Your task to perform on an android device: Open Google Chrome Image 0: 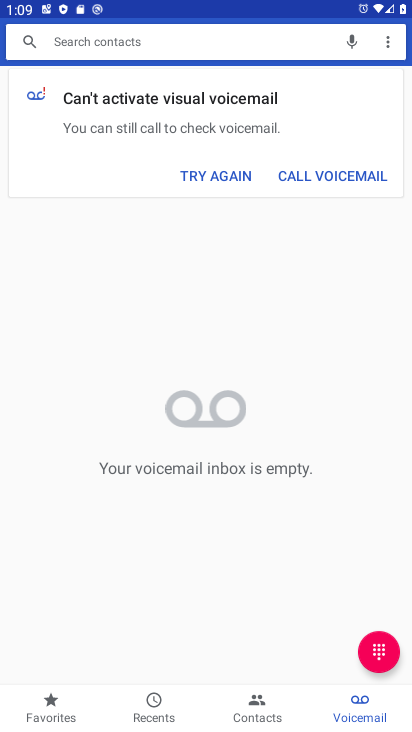
Step 0: press home button
Your task to perform on an android device: Open Google Chrome Image 1: 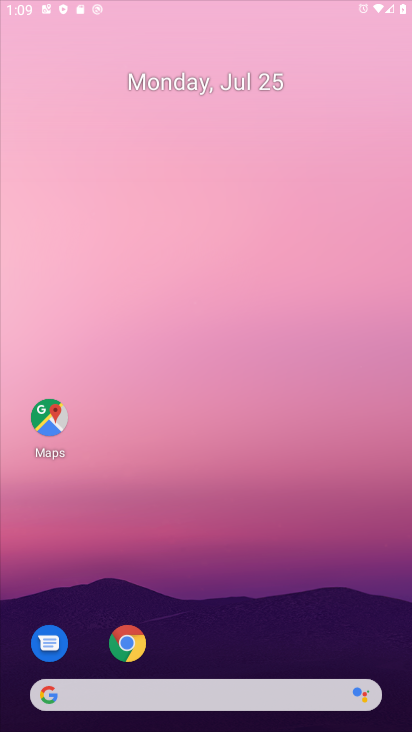
Step 1: drag from (326, 632) to (161, 119)
Your task to perform on an android device: Open Google Chrome Image 2: 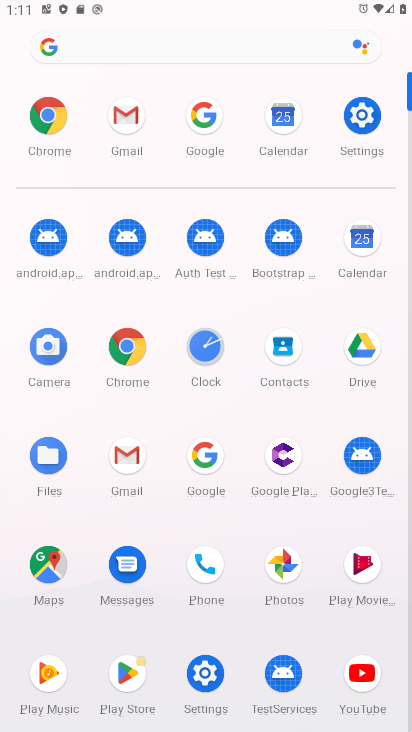
Step 2: click (113, 330)
Your task to perform on an android device: Open Google Chrome Image 3: 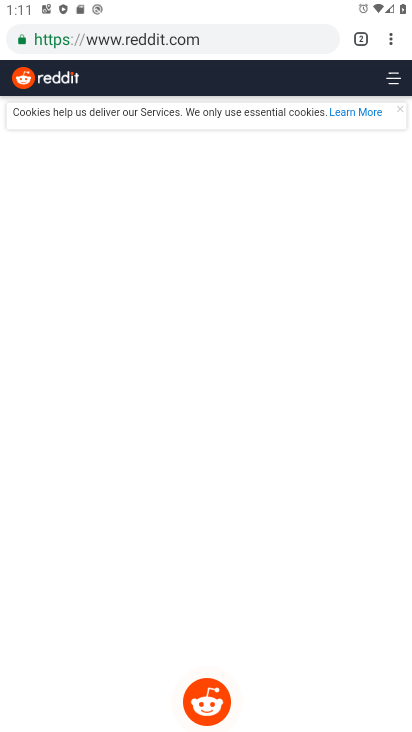
Step 3: press back button
Your task to perform on an android device: Open Google Chrome Image 4: 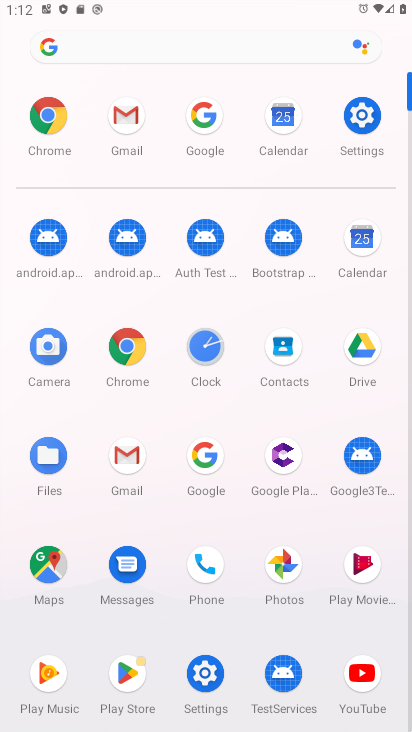
Step 4: click (127, 356)
Your task to perform on an android device: Open Google Chrome Image 5: 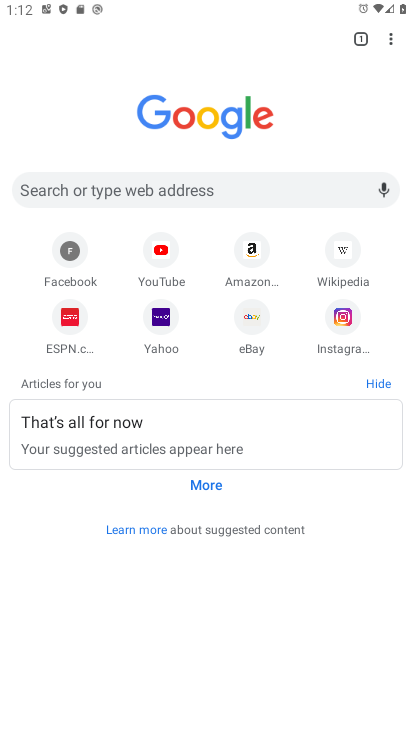
Step 5: task complete